Your task to perform on an android device: change the upload size in google photos Image 0: 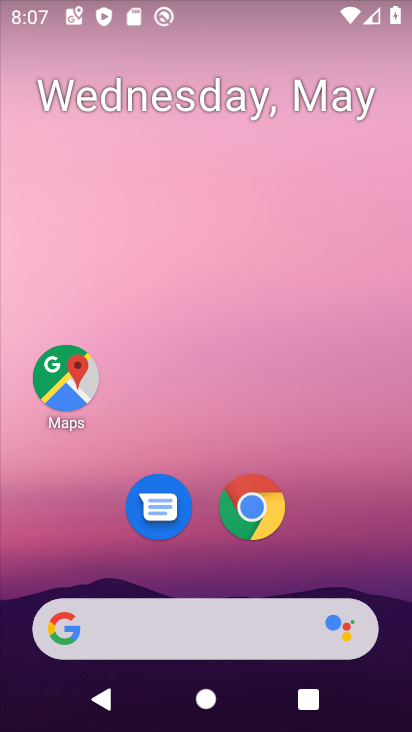
Step 0: drag from (330, 525) to (293, 268)
Your task to perform on an android device: change the upload size in google photos Image 1: 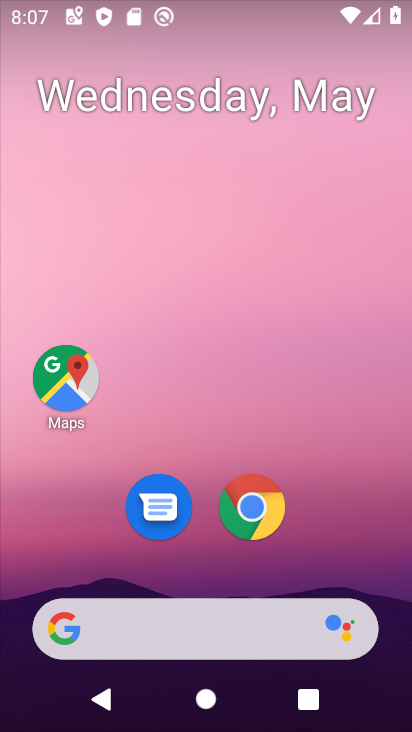
Step 1: drag from (290, 557) to (278, 234)
Your task to perform on an android device: change the upload size in google photos Image 2: 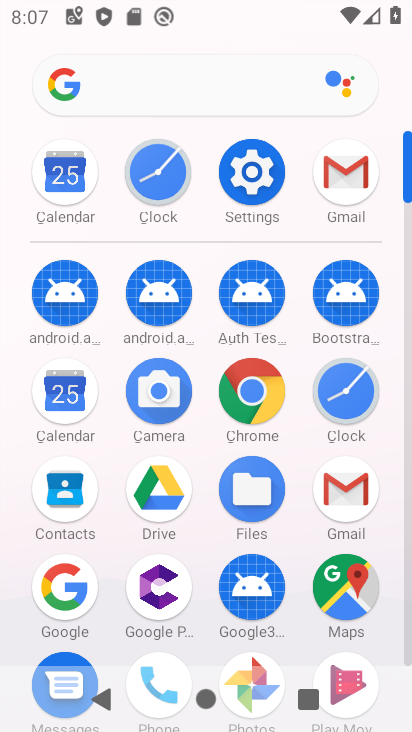
Step 2: click (258, 666)
Your task to perform on an android device: change the upload size in google photos Image 3: 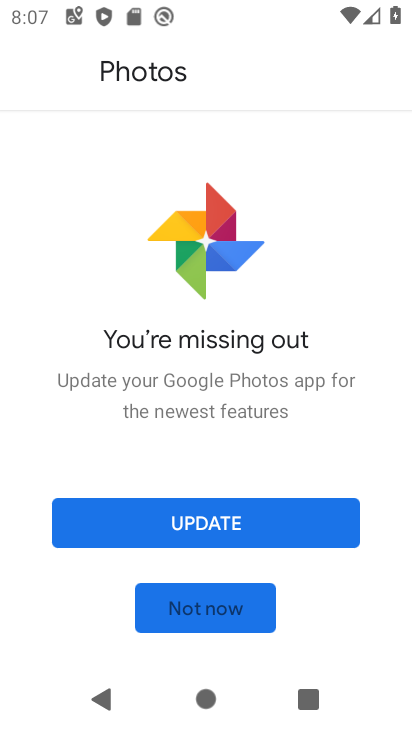
Step 3: click (205, 599)
Your task to perform on an android device: change the upload size in google photos Image 4: 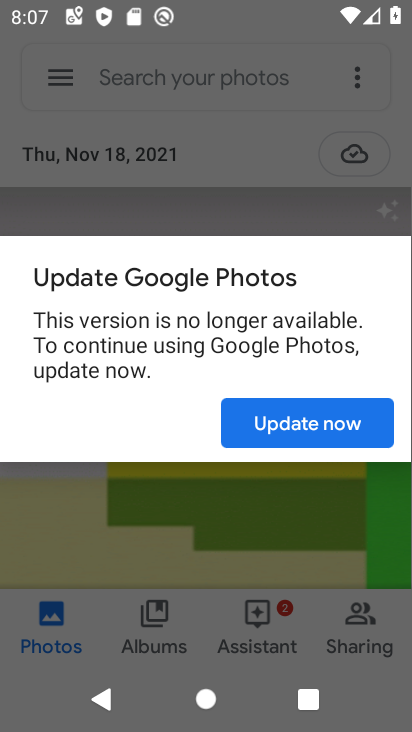
Step 4: click (288, 411)
Your task to perform on an android device: change the upload size in google photos Image 5: 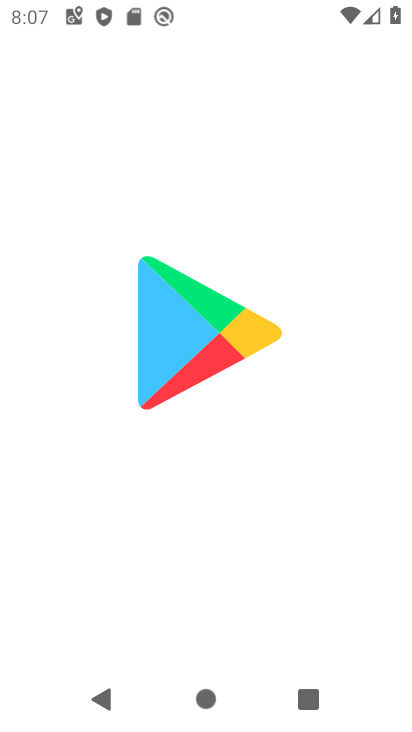
Step 5: press back button
Your task to perform on an android device: change the upload size in google photos Image 6: 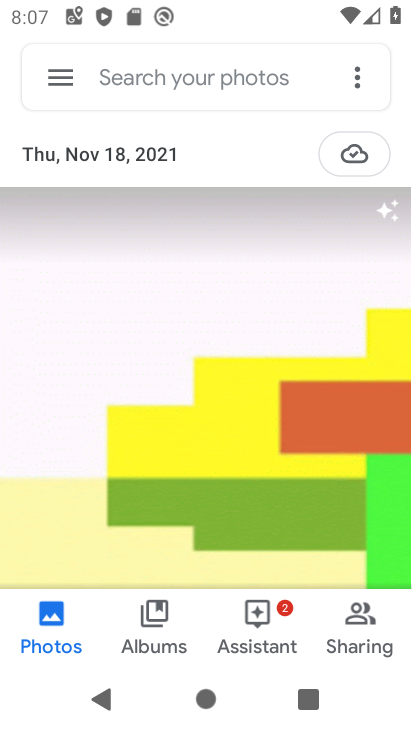
Step 6: click (46, 76)
Your task to perform on an android device: change the upload size in google photos Image 7: 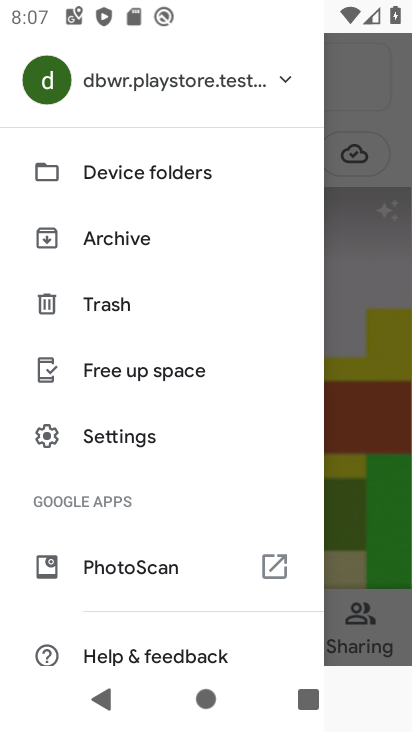
Step 7: drag from (150, 606) to (153, 506)
Your task to perform on an android device: change the upload size in google photos Image 8: 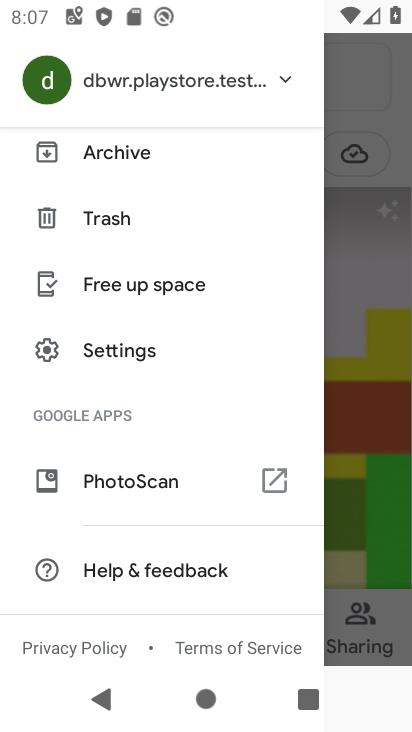
Step 8: click (148, 353)
Your task to perform on an android device: change the upload size in google photos Image 9: 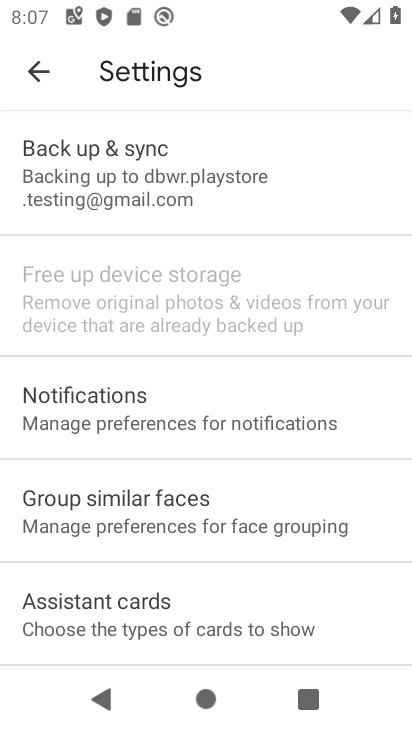
Step 9: click (176, 407)
Your task to perform on an android device: change the upload size in google photos Image 10: 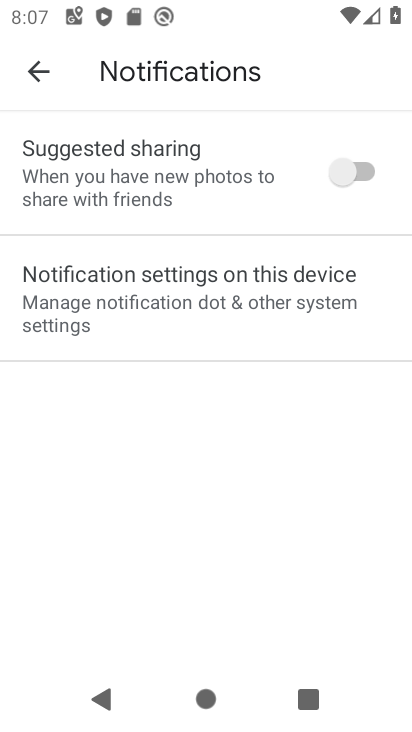
Step 10: click (64, 61)
Your task to perform on an android device: change the upload size in google photos Image 11: 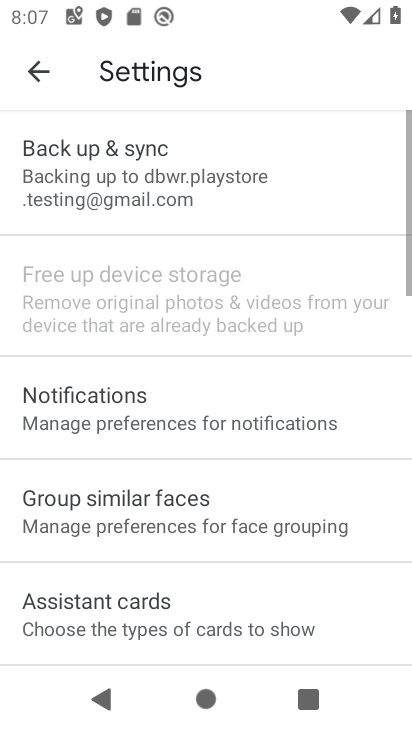
Step 11: click (188, 149)
Your task to perform on an android device: change the upload size in google photos Image 12: 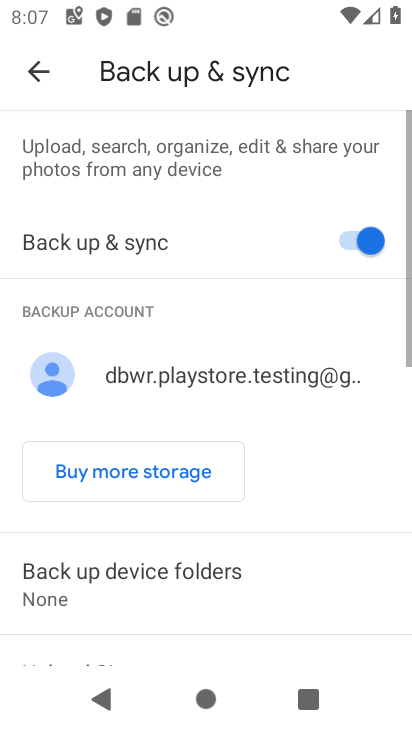
Step 12: drag from (238, 537) to (217, 276)
Your task to perform on an android device: change the upload size in google photos Image 13: 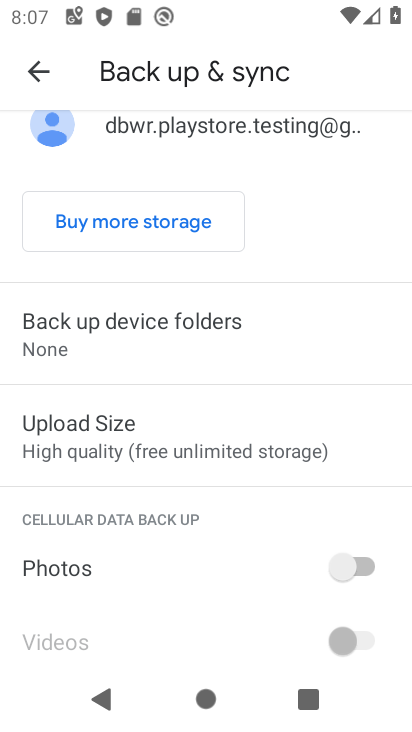
Step 13: click (157, 430)
Your task to perform on an android device: change the upload size in google photos Image 14: 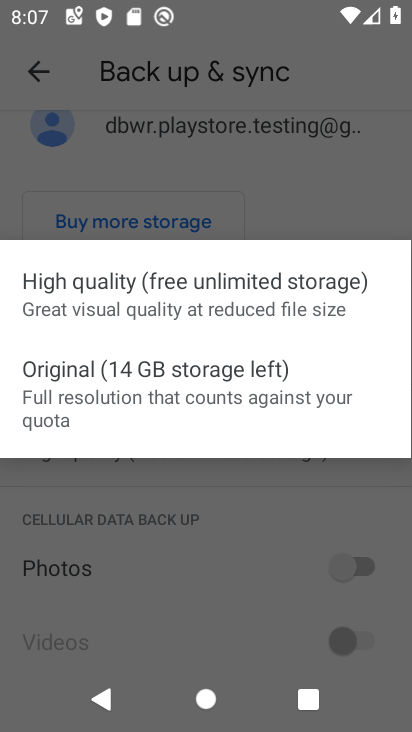
Step 14: click (134, 385)
Your task to perform on an android device: change the upload size in google photos Image 15: 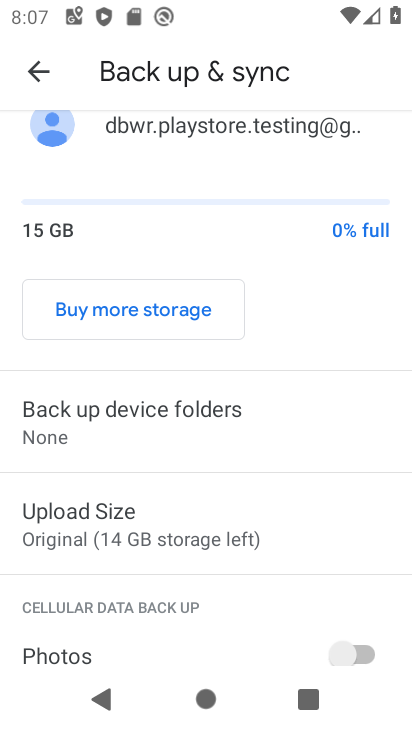
Step 15: task complete